Your task to perform on an android device: turn on sleep mode Image 0: 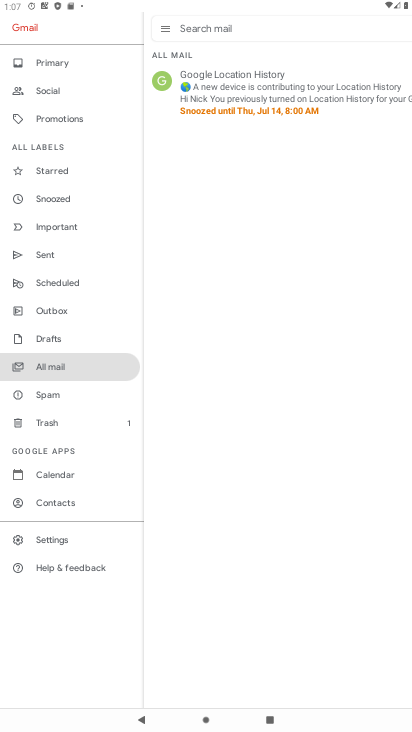
Step 0: press home button
Your task to perform on an android device: turn on sleep mode Image 1: 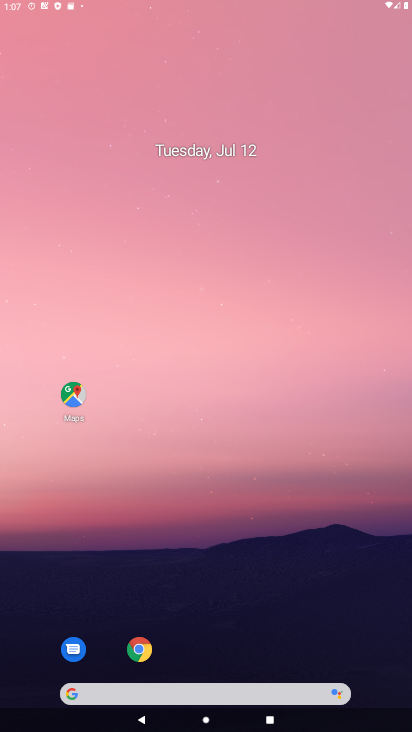
Step 1: drag from (360, 698) to (115, 31)
Your task to perform on an android device: turn on sleep mode Image 2: 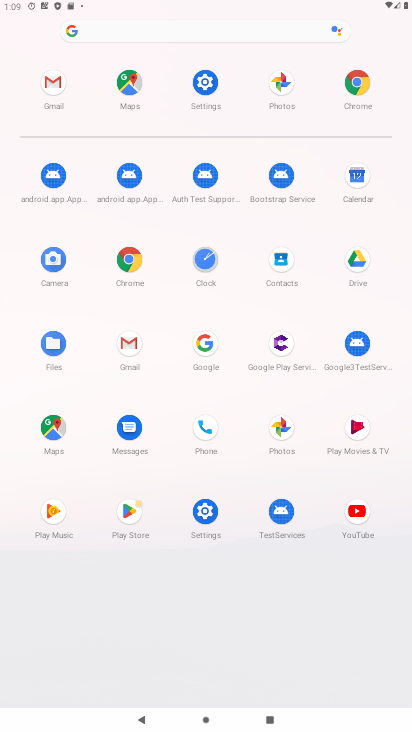
Step 2: click (197, 88)
Your task to perform on an android device: turn on sleep mode Image 3: 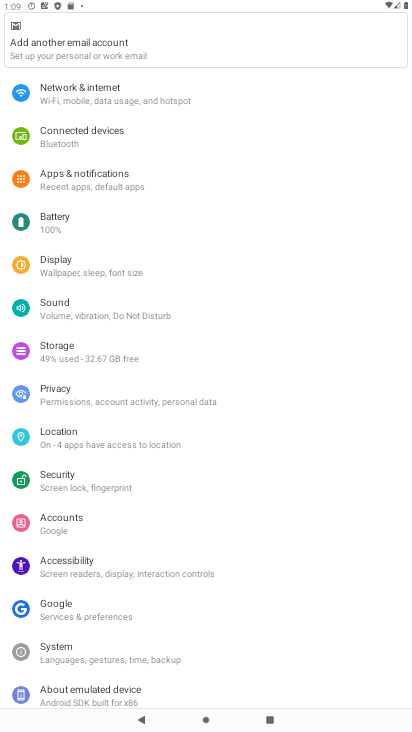
Step 3: task complete